Your task to perform on an android device: toggle location history Image 0: 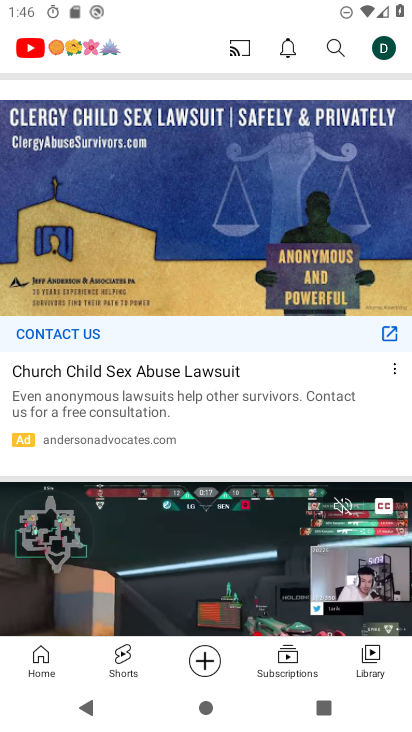
Step 0: press home button
Your task to perform on an android device: toggle location history Image 1: 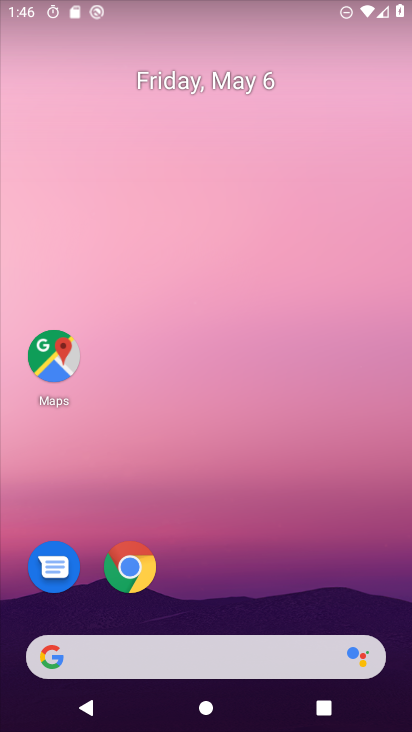
Step 1: click (57, 361)
Your task to perform on an android device: toggle location history Image 2: 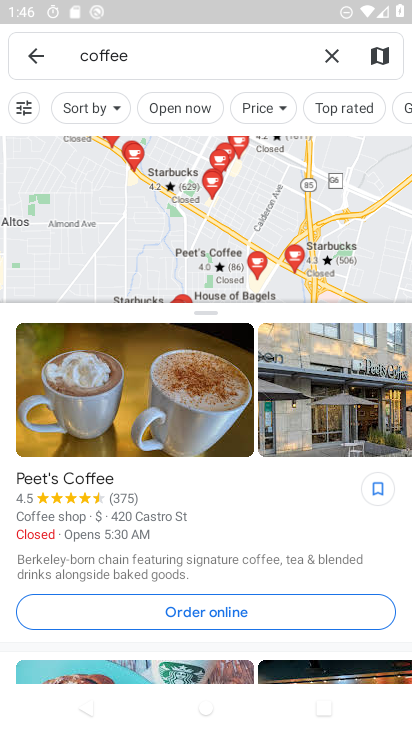
Step 2: click (346, 51)
Your task to perform on an android device: toggle location history Image 3: 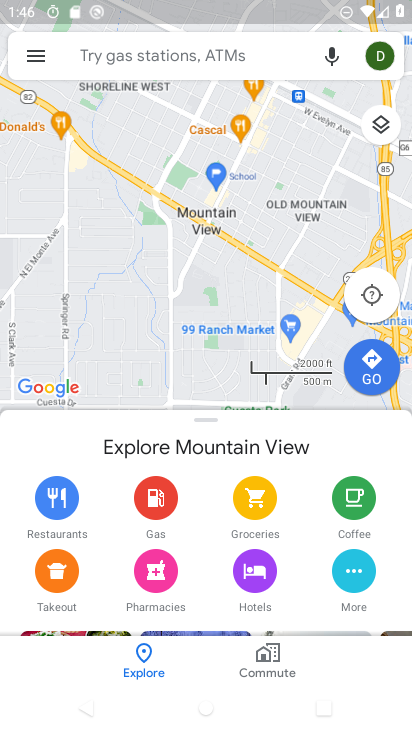
Step 3: click (29, 52)
Your task to perform on an android device: toggle location history Image 4: 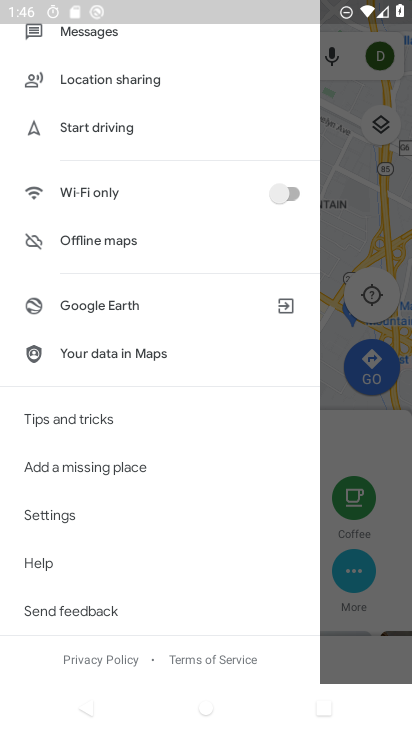
Step 4: drag from (161, 217) to (147, 513)
Your task to perform on an android device: toggle location history Image 5: 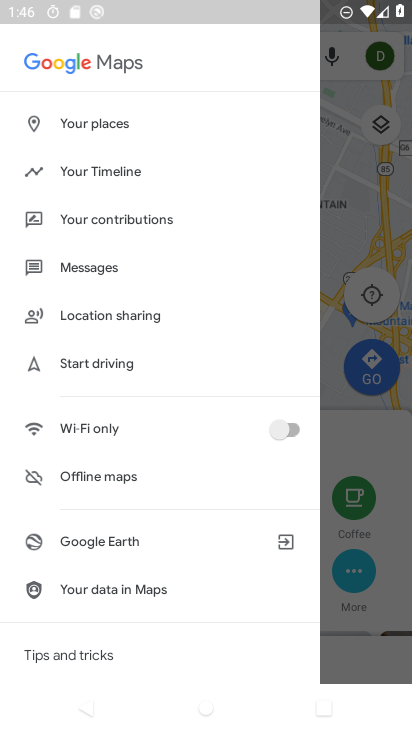
Step 5: click (95, 176)
Your task to perform on an android device: toggle location history Image 6: 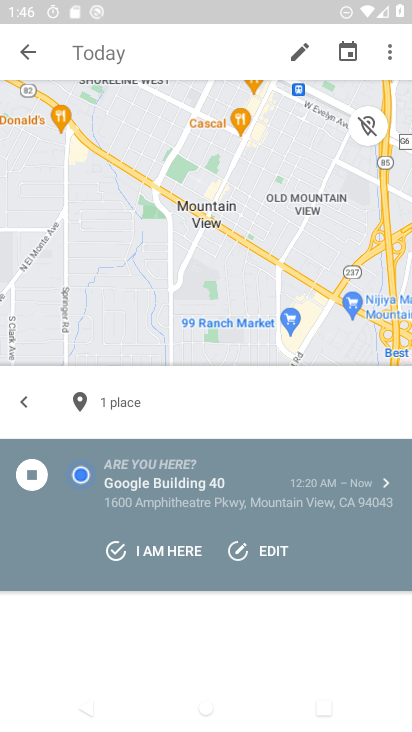
Step 6: click (392, 62)
Your task to perform on an android device: toggle location history Image 7: 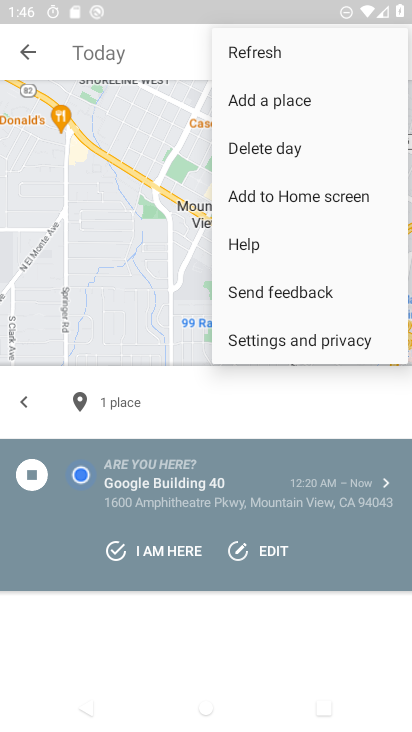
Step 7: click (278, 342)
Your task to perform on an android device: toggle location history Image 8: 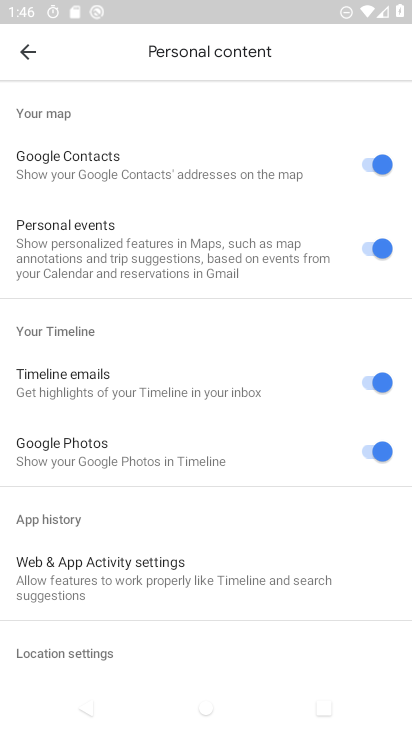
Step 8: drag from (151, 499) to (125, 149)
Your task to perform on an android device: toggle location history Image 9: 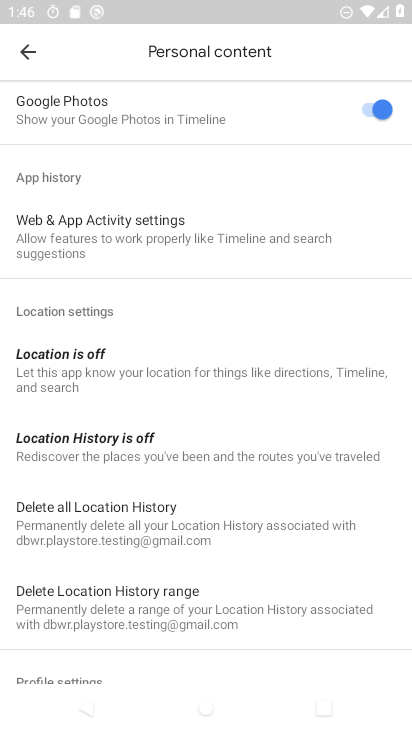
Step 9: click (77, 439)
Your task to perform on an android device: toggle location history Image 10: 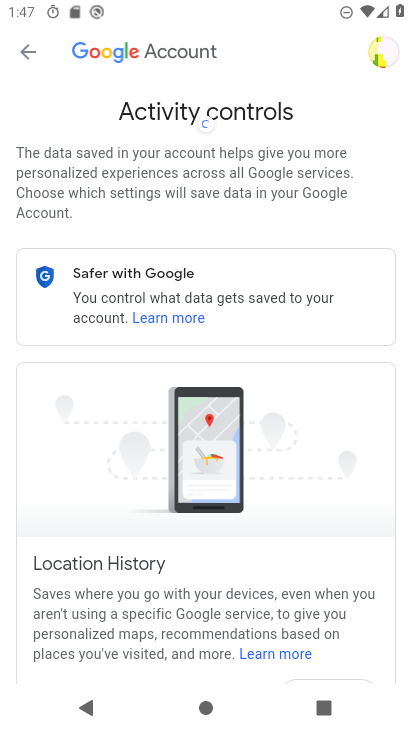
Step 10: drag from (275, 491) to (258, 117)
Your task to perform on an android device: toggle location history Image 11: 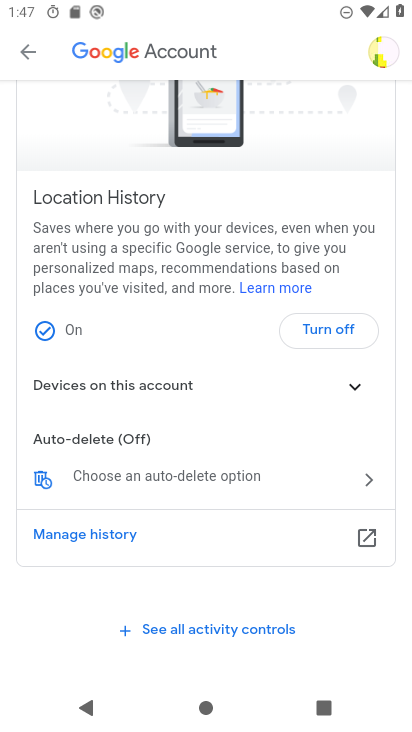
Step 11: click (324, 335)
Your task to perform on an android device: toggle location history Image 12: 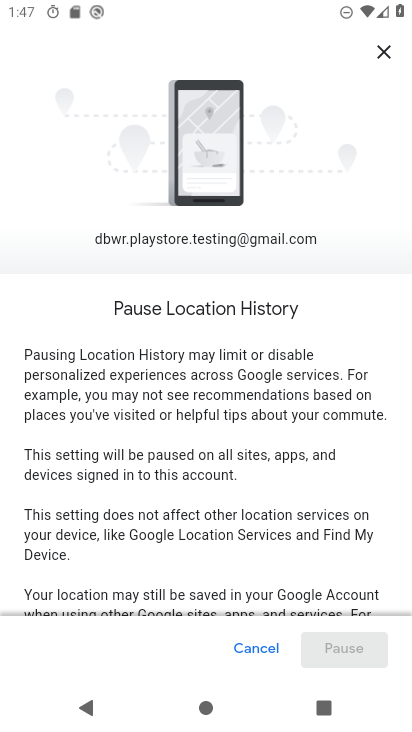
Step 12: drag from (256, 538) to (243, 87)
Your task to perform on an android device: toggle location history Image 13: 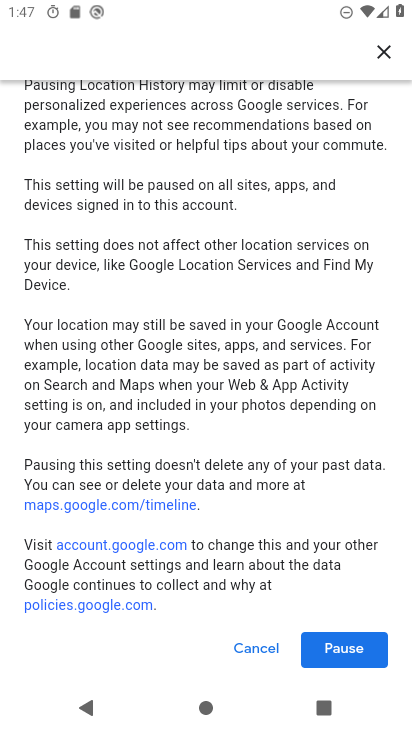
Step 13: click (347, 653)
Your task to perform on an android device: toggle location history Image 14: 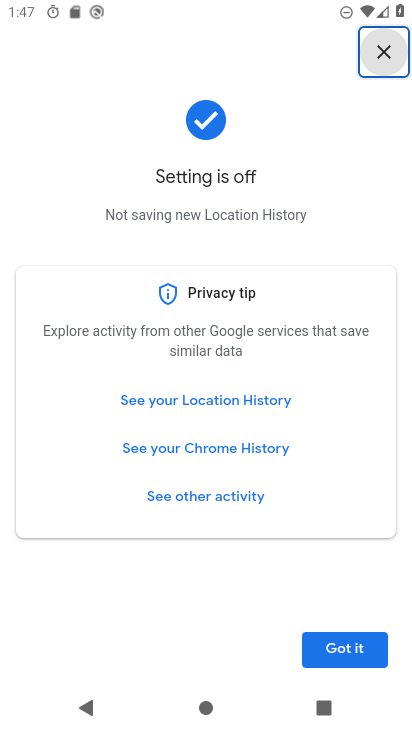
Step 14: click (346, 651)
Your task to perform on an android device: toggle location history Image 15: 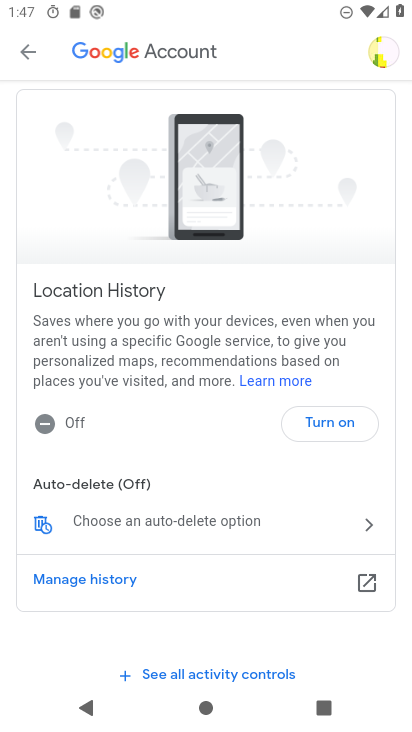
Step 15: task complete